Your task to perform on an android device: refresh tabs in the chrome app Image 0: 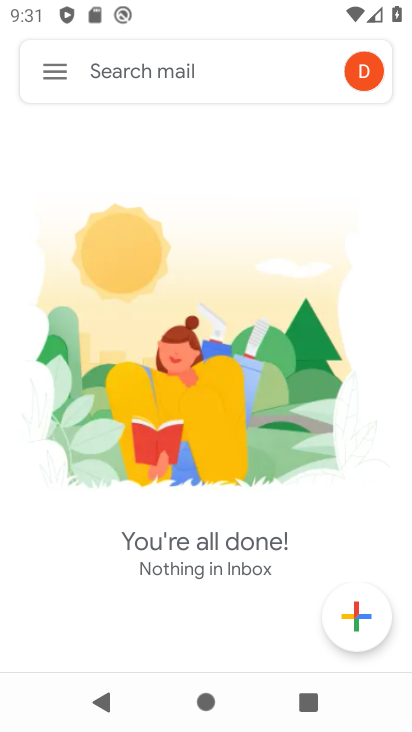
Step 0: press home button
Your task to perform on an android device: refresh tabs in the chrome app Image 1: 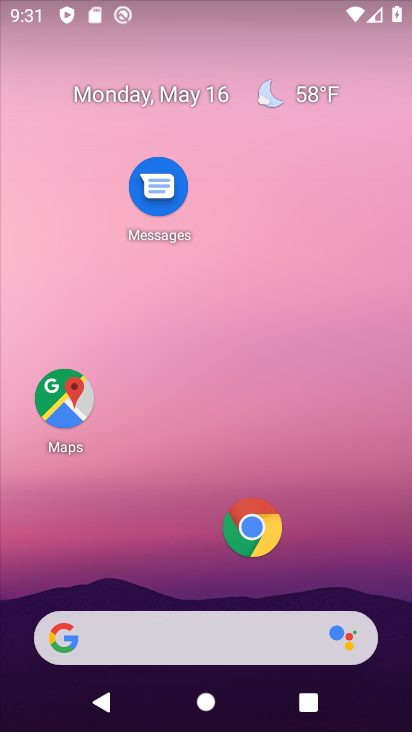
Step 1: click (252, 524)
Your task to perform on an android device: refresh tabs in the chrome app Image 2: 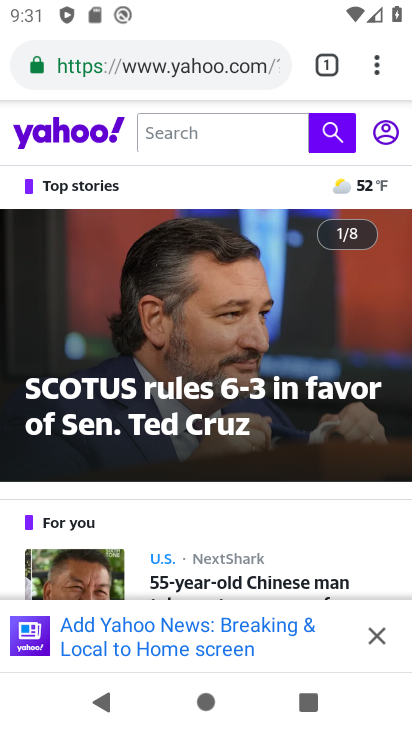
Step 2: click (369, 63)
Your task to perform on an android device: refresh tabs in the chrome app Image 3: 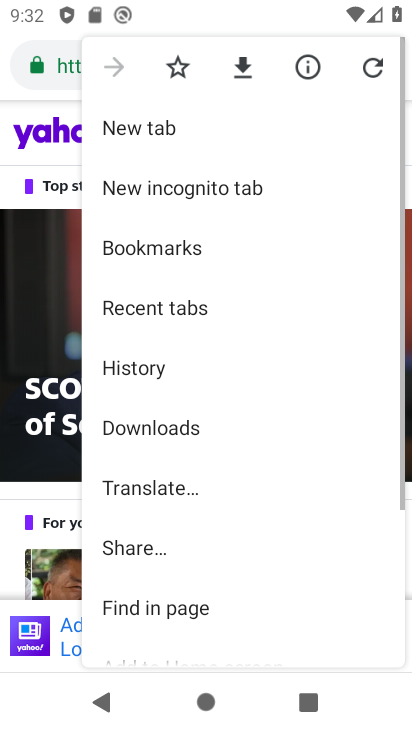
Step 3: click (368, 71)
Your task to perform on an android device: refresh tabs in the chrome app Image 4: 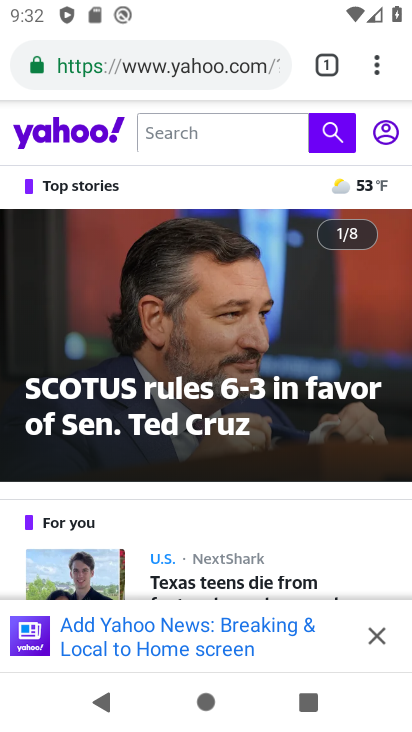
Step 4: task complete